Your task to perform on an android device: Open the calendar app, open the side menu, and click the "Day" option Image 0: 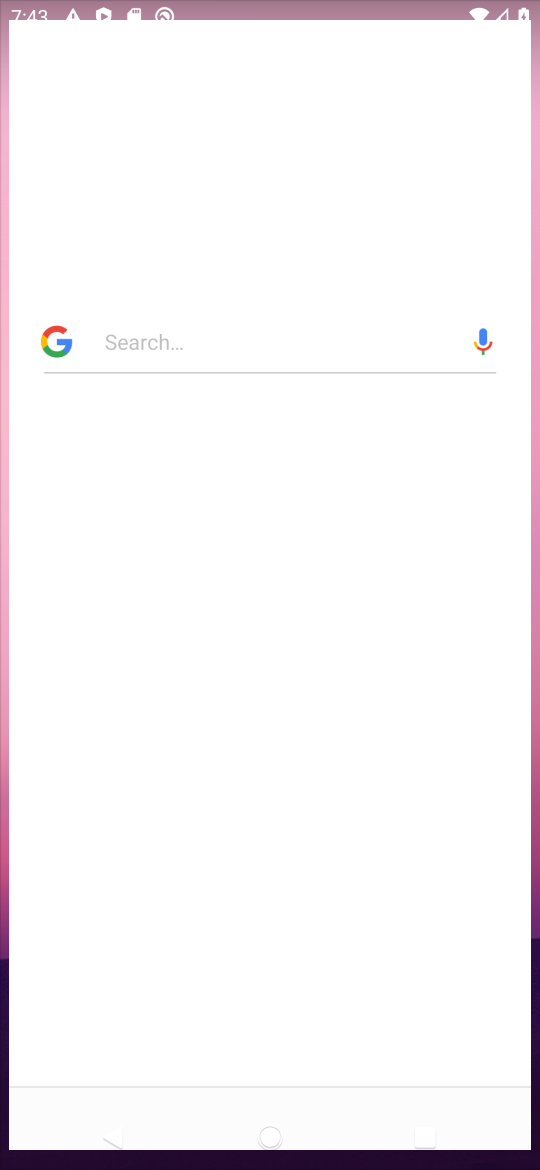
Step 0: press home button
Your task to perform on an android device: Open the calendar app, open the side menu, and click the "Day" option Image 1: 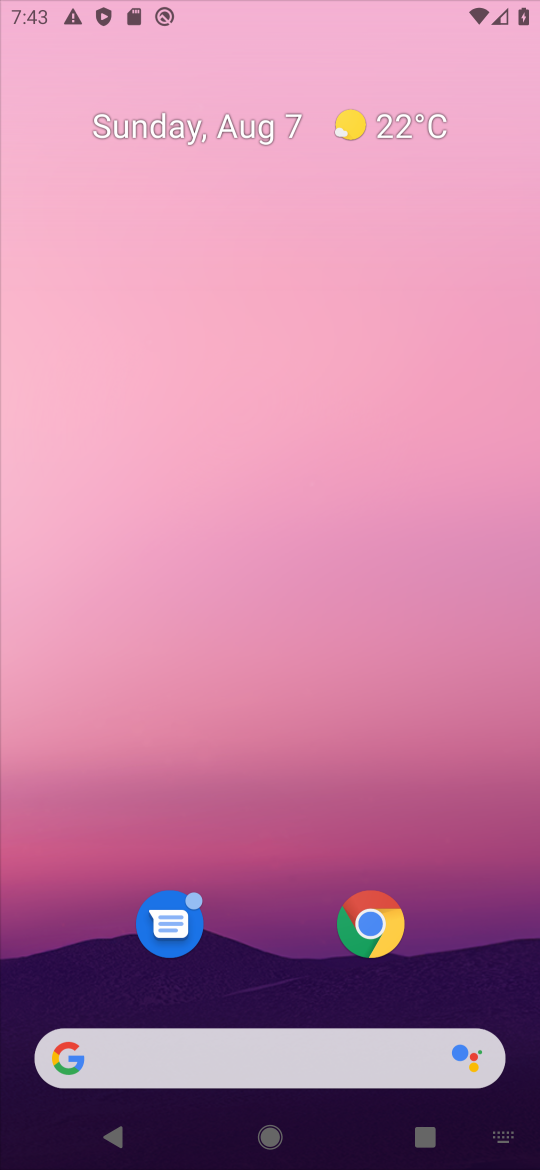
Step 1: press home button
Your task to perform on an android device: Open the calendar app, open the side menu, and click the "Day" option Image 2: 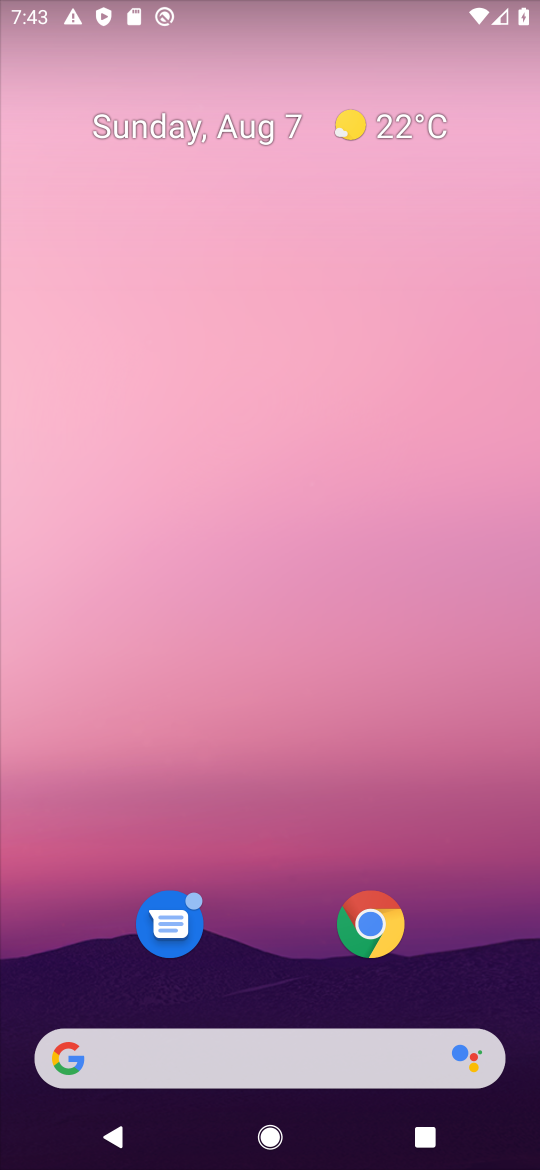
Step 2: drag from (310, 603) to (339, 0)
Your task to perform on an android device: Open the calendar app, open the side menu, and click the "Day" option Image 3: 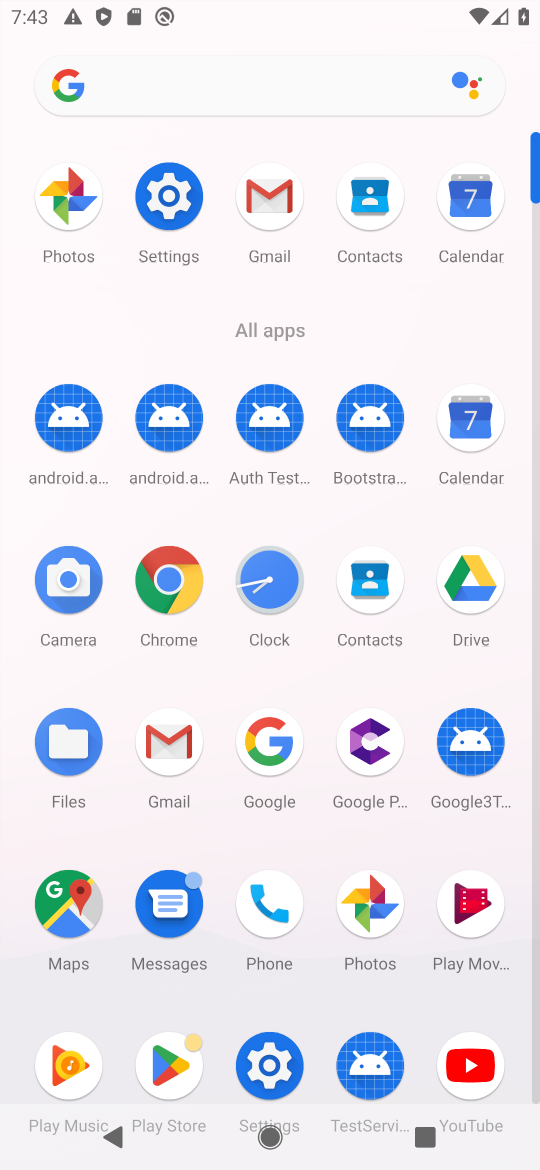
Step 3: click (464, 199)
Your task to perform on an android device: Open the calendar app, open the side menu, and click the "Day" option Image 4: 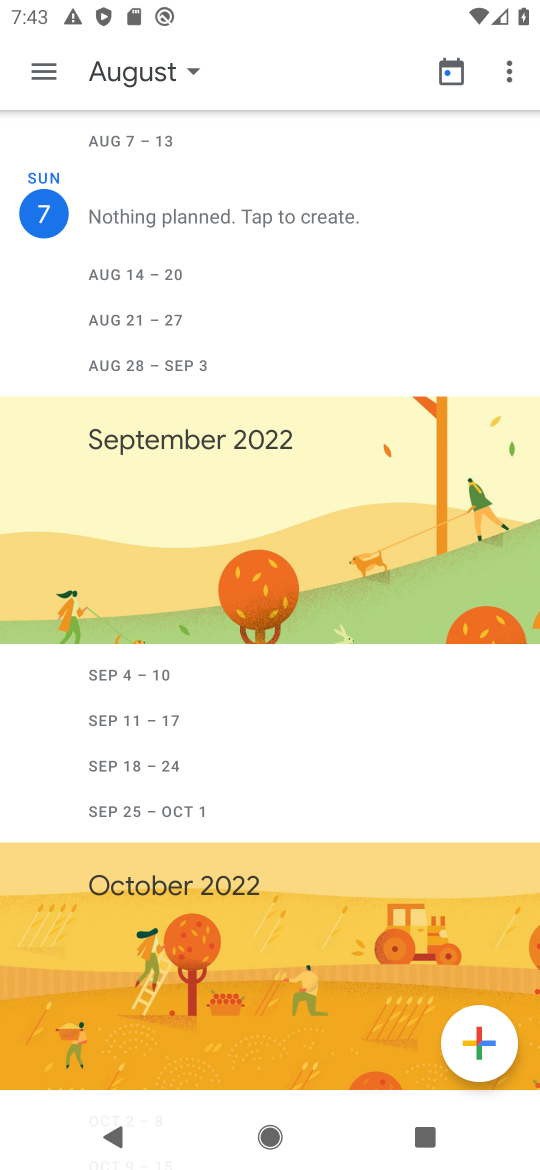
Step 4: click (45, 67)
Your task to perform on an android device: Open the calendar app, open the side menu, and click the "Day" option Image 5: 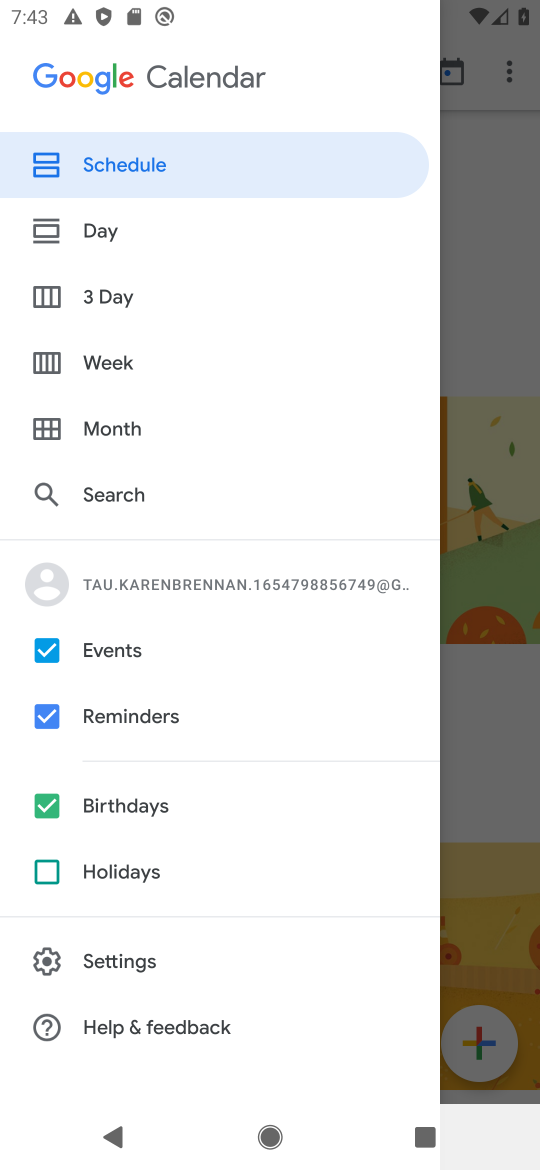
Step 5: click (44, 228)
Your task to perform on an android device: Open the calendar app, open the side menu, and click the "Day" option Image 6: 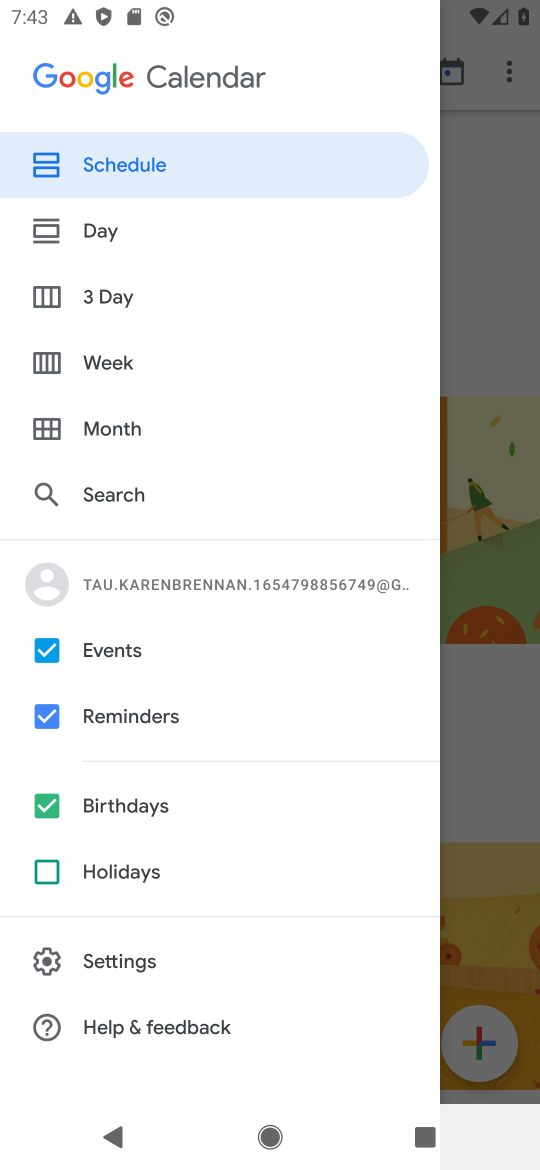
Step 6: click (45, 223)
Your task to perform on an android device: Open the calendar app, open the side menu, and click the "Day" option Image 7: 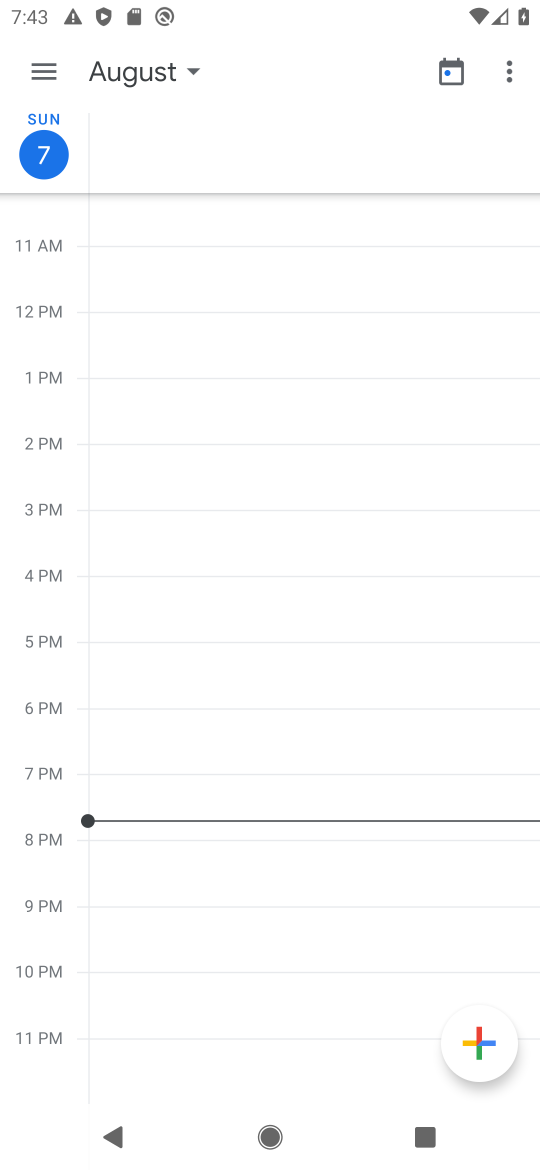
Step 7: task complete